Your task to perform on an android device: Go to Amazon Image 0: 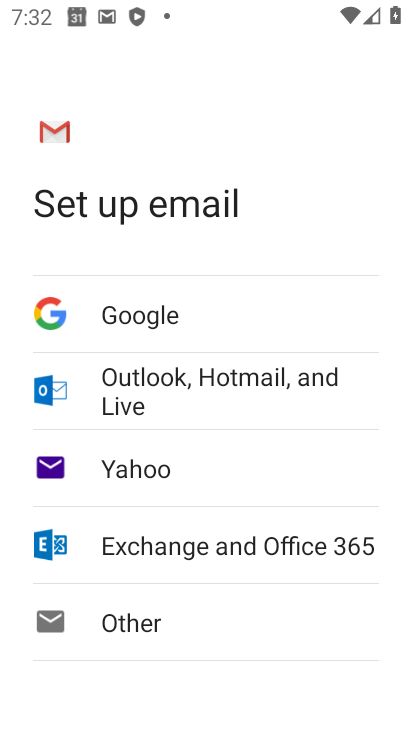
Step 0: press home button
Your task to perform on an android device: Go to Amazon Image 1: 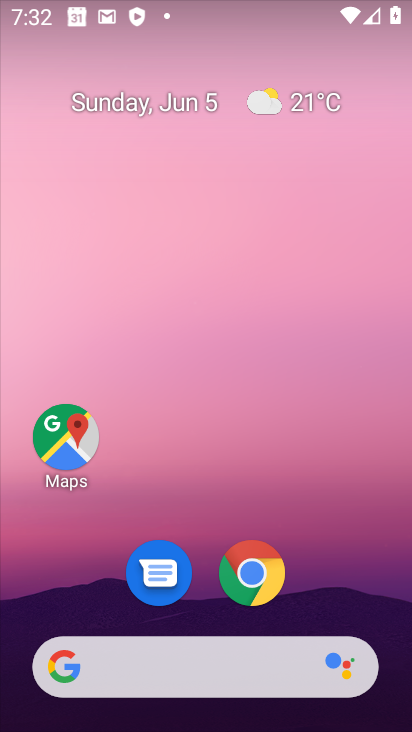
Step 1: click (237, 572)
Your task to perform on an android device: Go to Amazon Image 2: 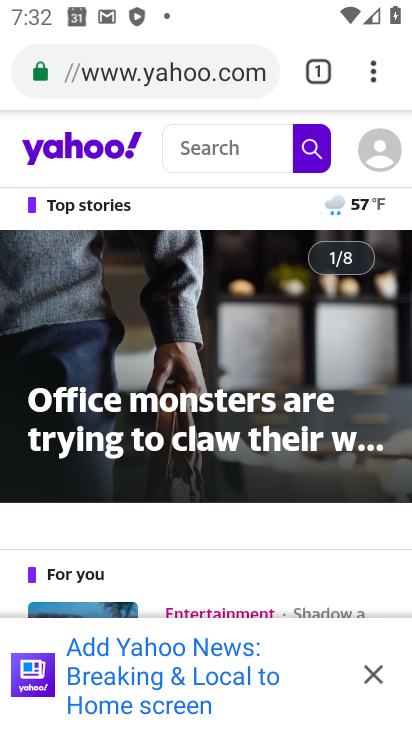
Step 2: click (372, 59)
Your task to perform on an android device: Go to Amazon Image 3: 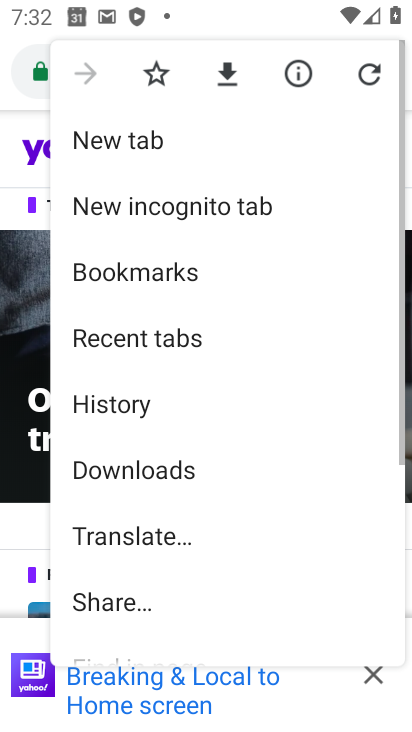
Step 3: click (177, 134)
Your task to perform on an android device: Go to Amazon Image 4: 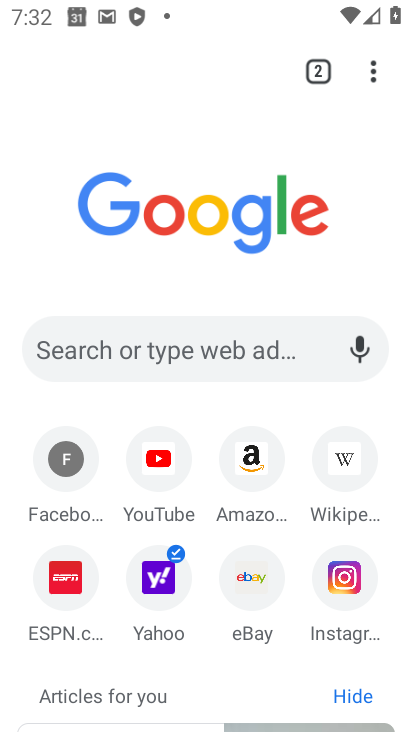
Step 4: click (245, 462)
Your task to perform on an android device: Go to Amazon Image 5: 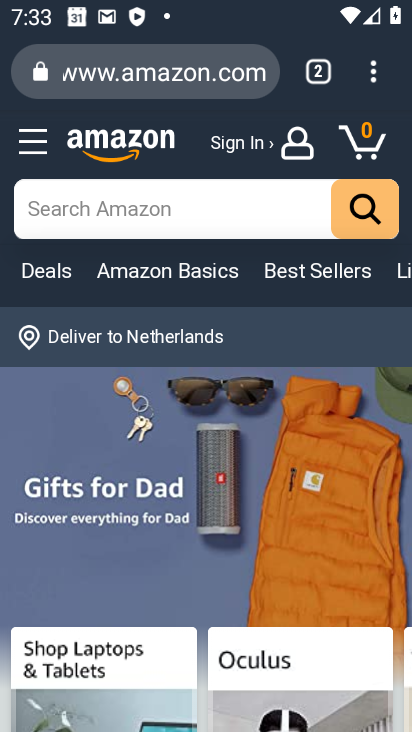
Step 5: task complete